Your task to perform on an android device: Open Chrome and go to settings Image 0: 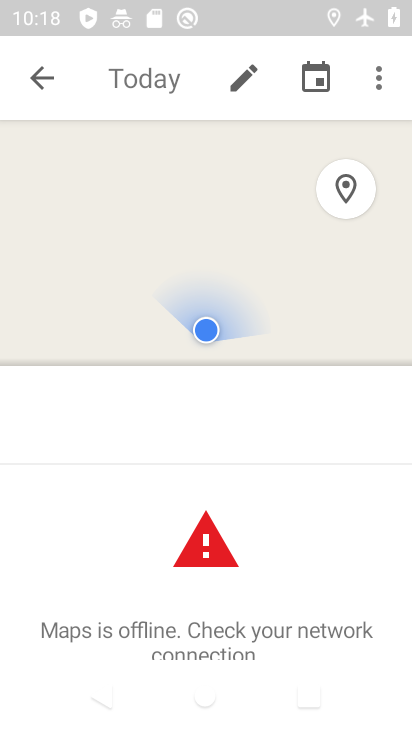
Step 0: press home button
Your task to perform on an android device: Open Chrome and go to settings Image 1: 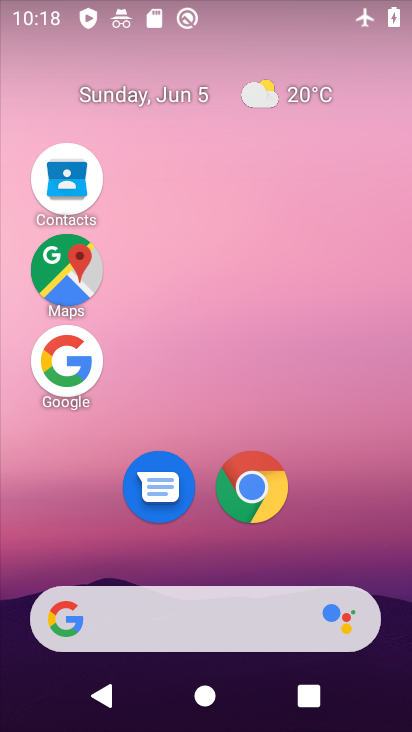
Step 1: click (275, 500)
Your task to perform on an android device: Open Chrome and go to settings Image 2: 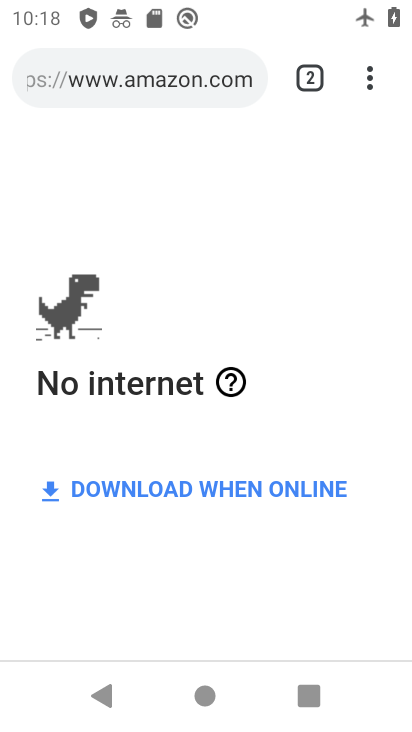
Step 2: click (372, 72)
Your task to perform on an android device: Open Chrome and go to settings Image 3: 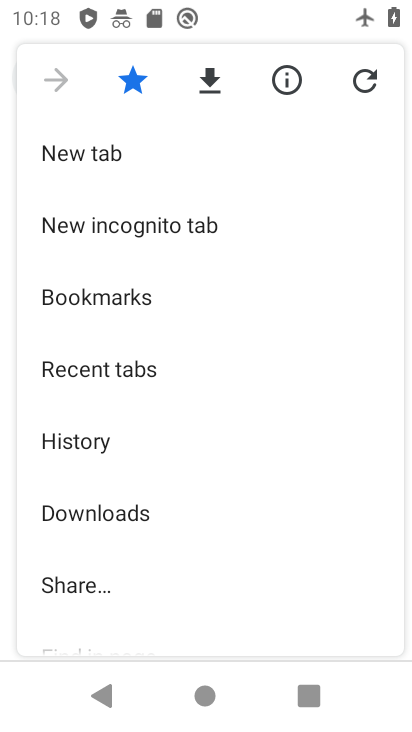
Step 3: drag from (190, 506) to (255, 126)
Your task to perform on an android device: Open Chrome and go to settings Image 4: 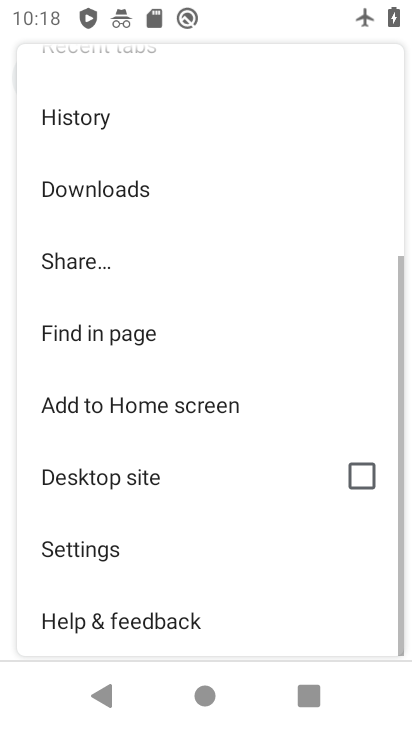
Step 4: click (85, 550)
Your task to perform on an android device: Open Chrome and go to settings Image 5: 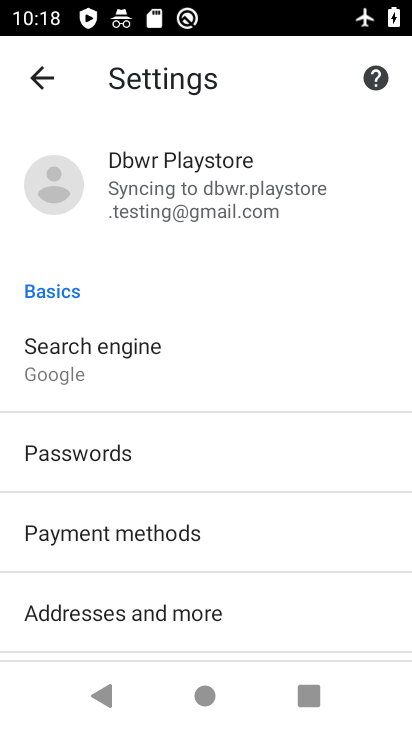
Step 5: task complete